Your task to perform on an android device: turn off javascript in the chrome app Image 0: 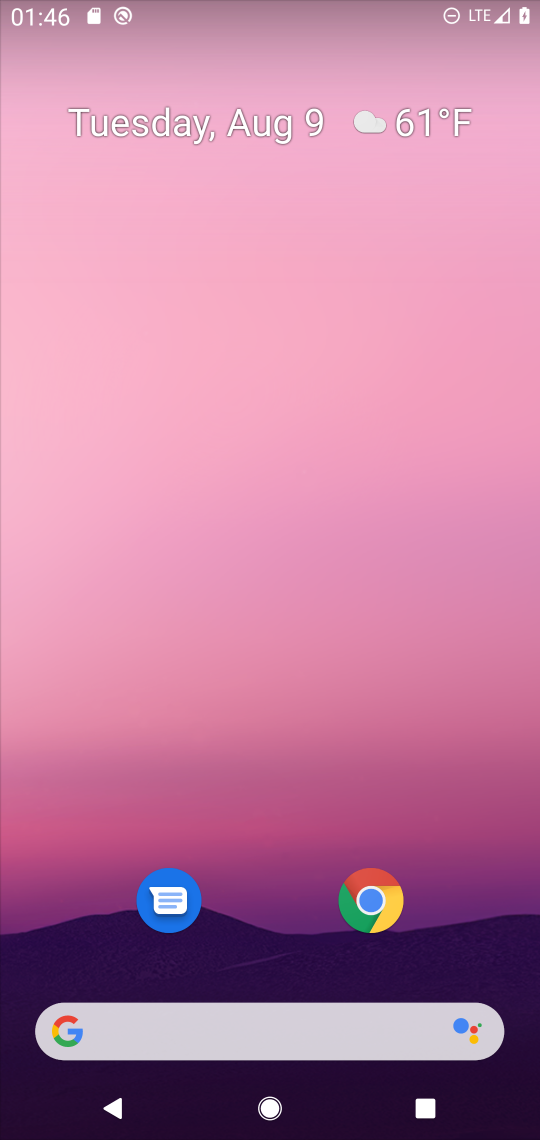
Step 0: press home button
Your task to perform on an android device: turn off javascript in the chrome app Image 1: 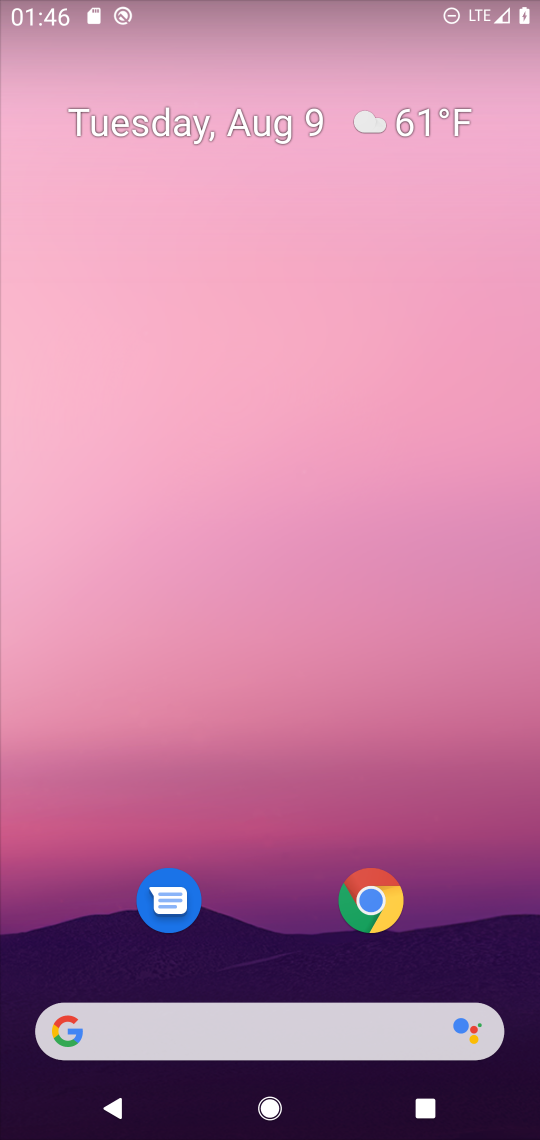
Step 1: drag from (271, 944) to (349, 90)
Your task to perform on an android device: turn off javascript in the chrome app Image 2: 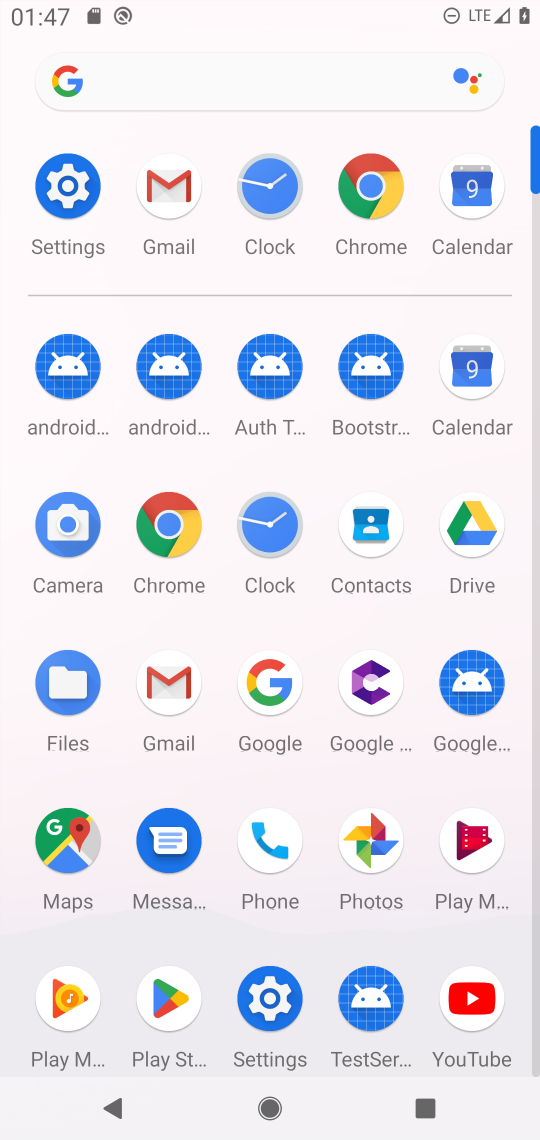
Step 2: click (167, 519)
Your task to perform on an android device: turn off javascript in the chrome app Image 3: 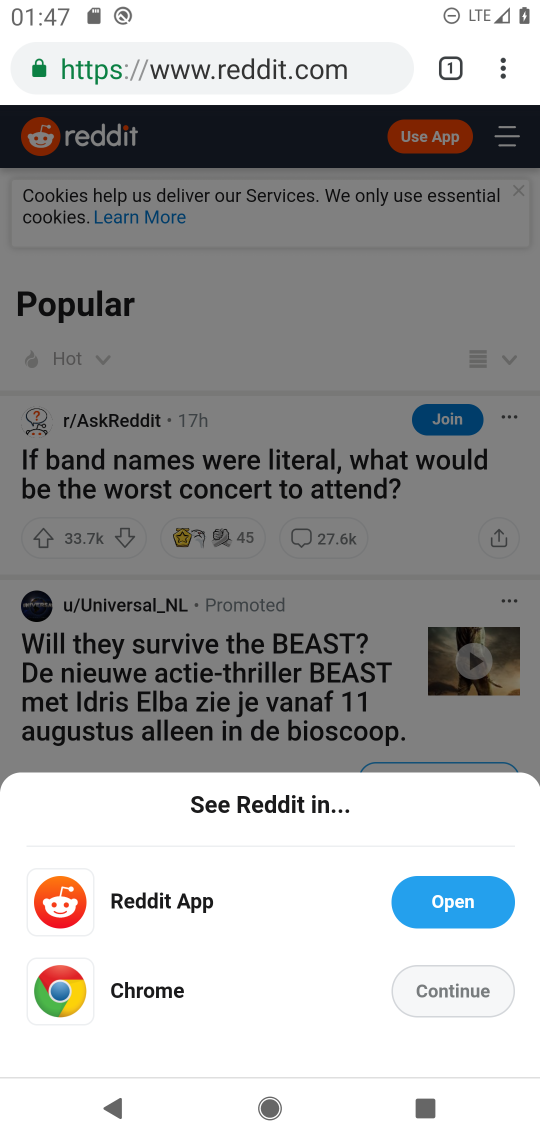
Step 3: click (505, 70)
Your task to perform on an android device: turn off javascript in the chrome app Image 4: 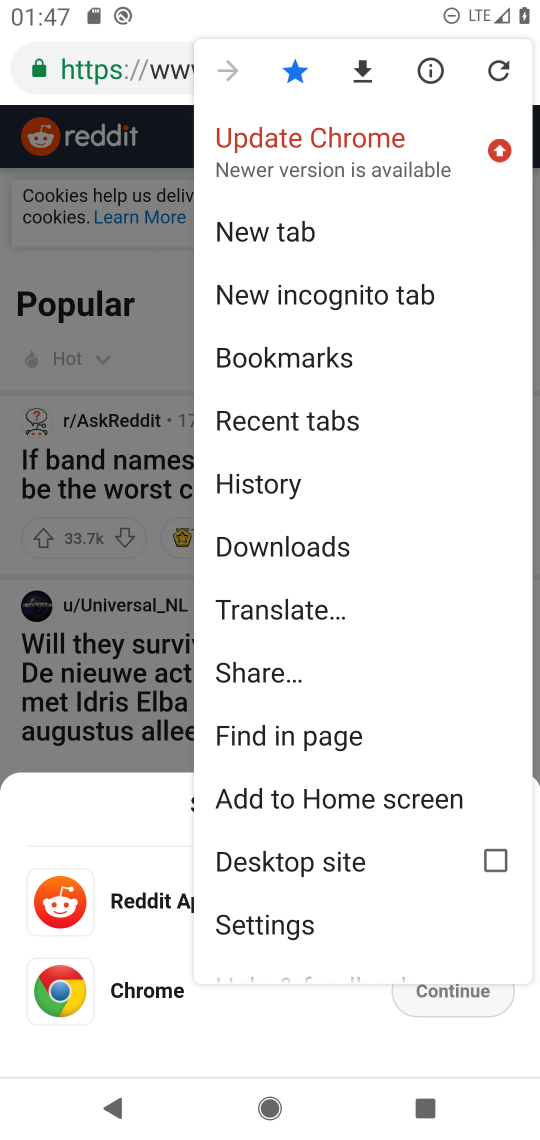
Step 4: click (322, 920)
Your task to perform on an android device: turn off javascript in the chrome app Image 5: 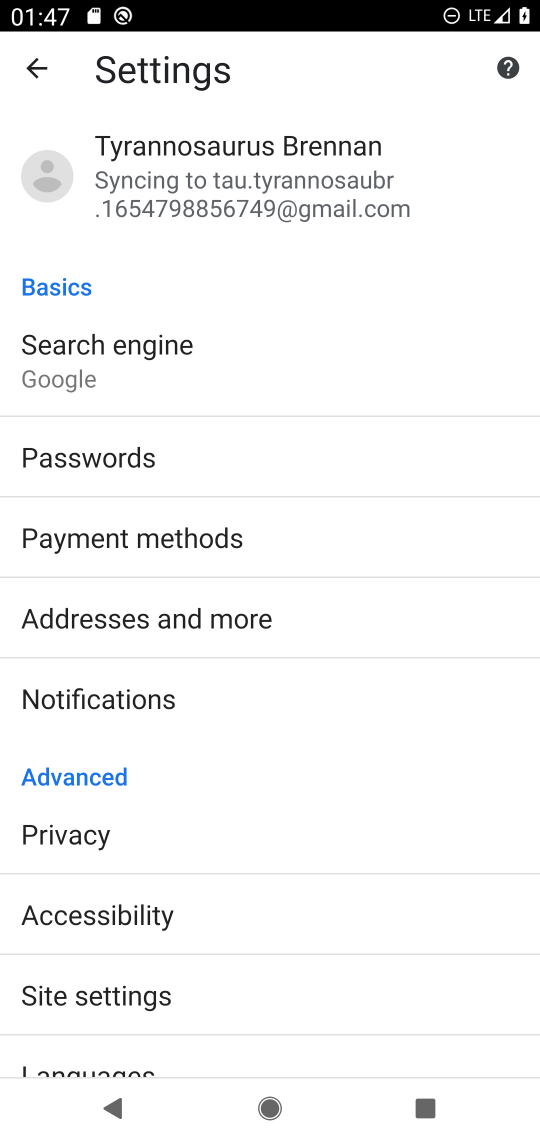
Step 5: drag from (354, 865) to (388, 607)
Your task to perform on an android device: turn off javascript in the chrome app Image 6: 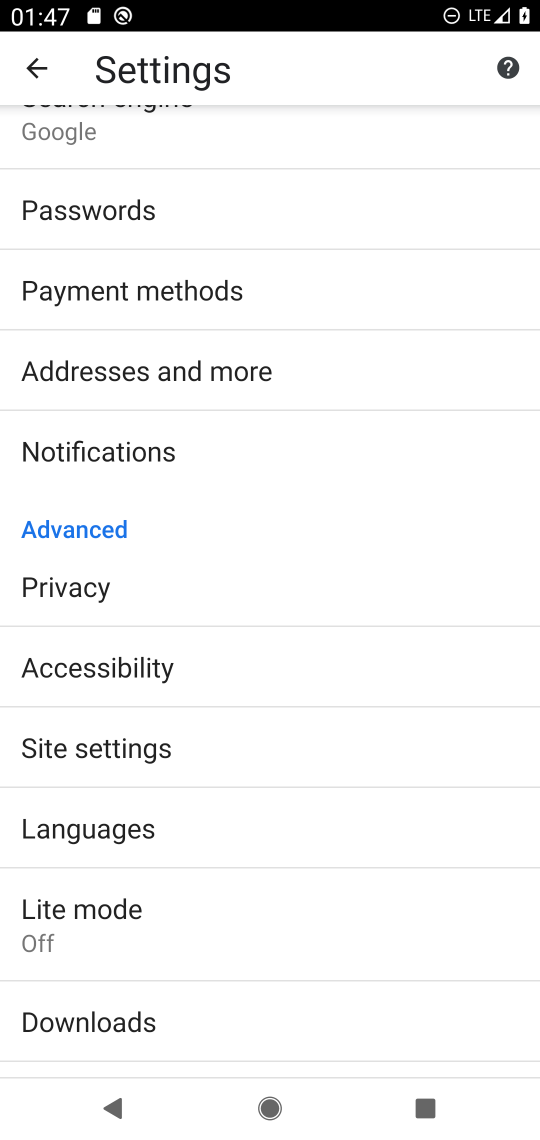
Step 6: drag from (342, 862) to (385, 624)
Your task to perform on an android device: turn off javascript in the chrome app Image 7: 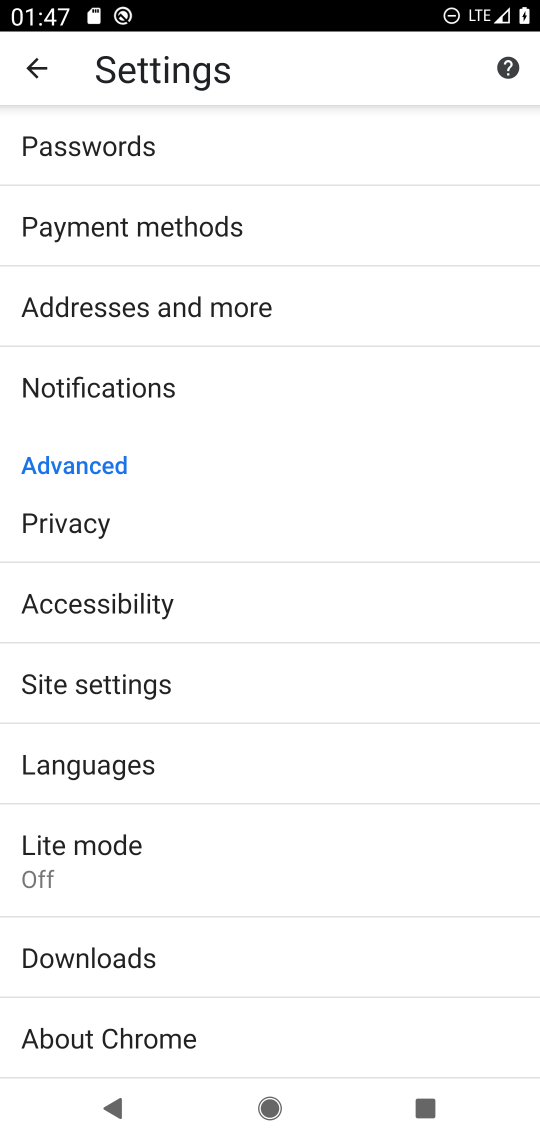
Step 7: drag from (363, 848) to (385, 623)
Your task to perform on an android device: turn off javascript in the chrome app Image 8: 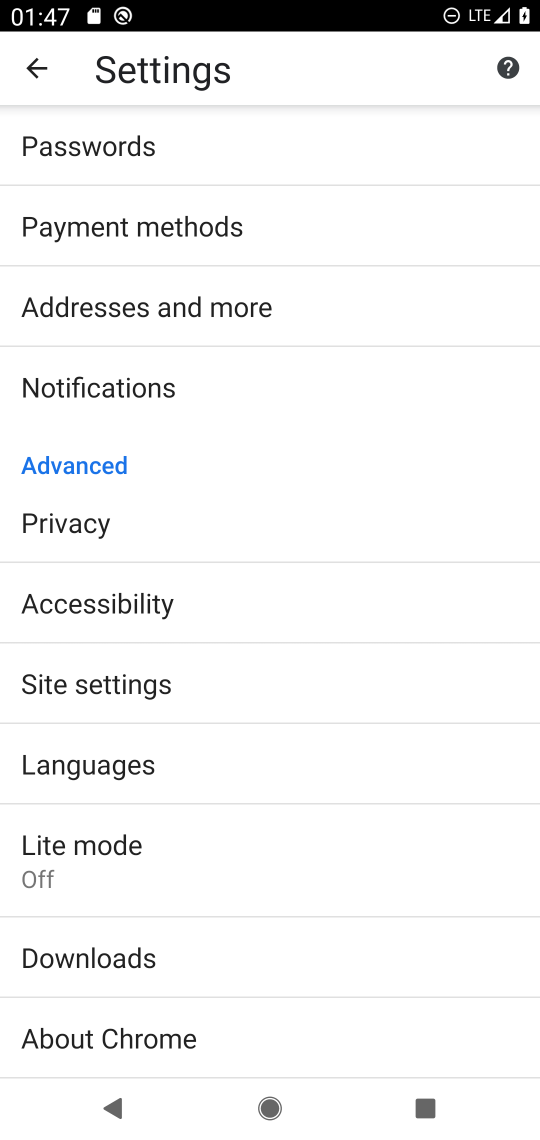
Step 8: drag from (362, 808) to (387, 566)
Your task to perform on an android device: turn off javascript in the chrome app Image 9: 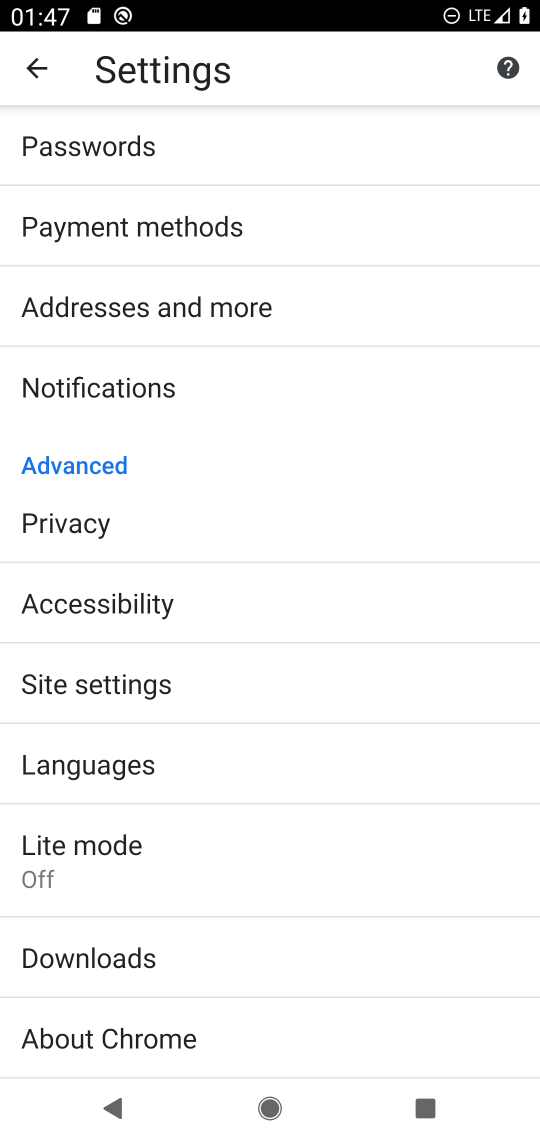
Step 9: click (322, 677)
Your task to perform on an android device: turn off javascript in the chrome app Image 10: 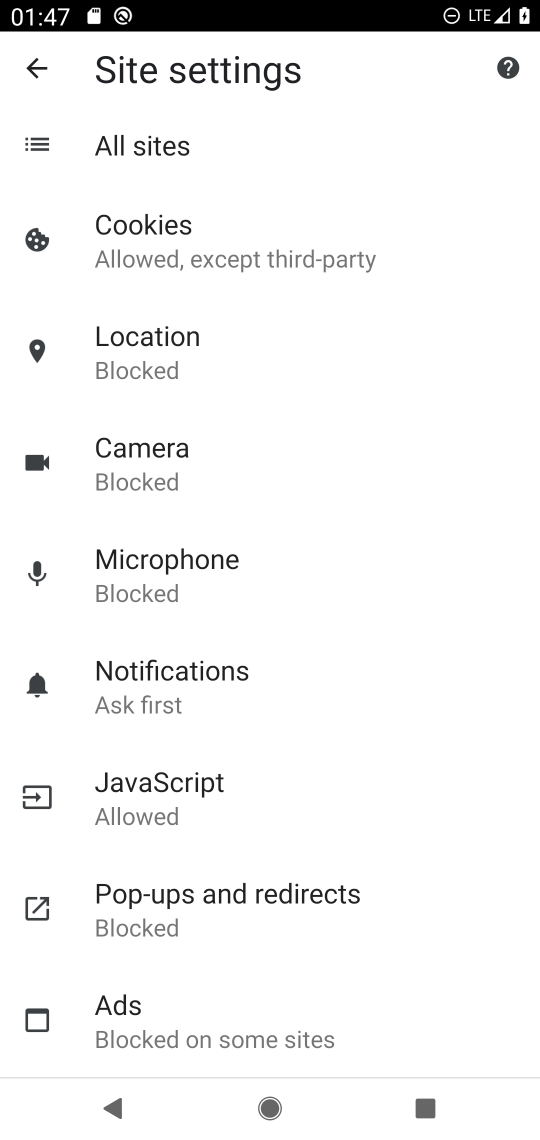
Step 10: drag from (412, 812) to (439, 581)
Your task to perform on an android device: turn off javascript in the chrome app Image 11: 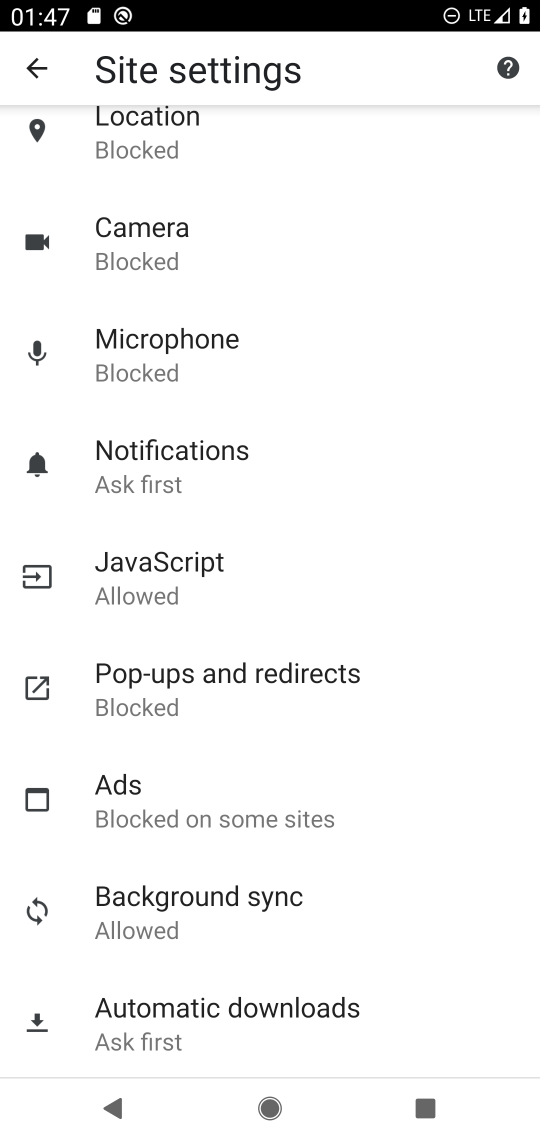
Step 11: click (241, 566)
Your task to perform on an android device: turn off javascript in the chrome app Image 12: 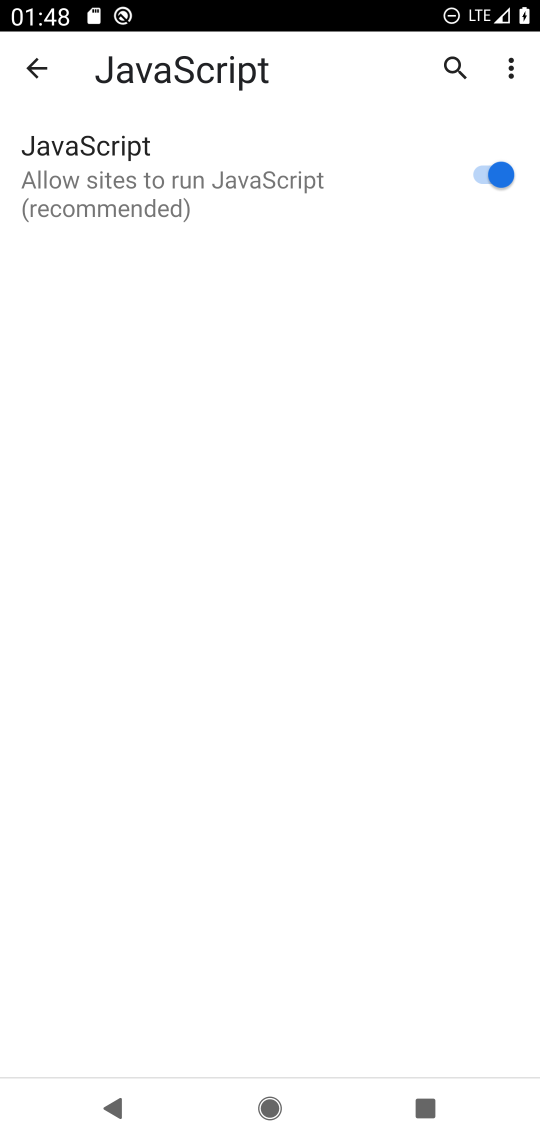
Step 12: click (495, 176)
Your task to perform on an android device: turn off javascript in the chrome app Image 13: 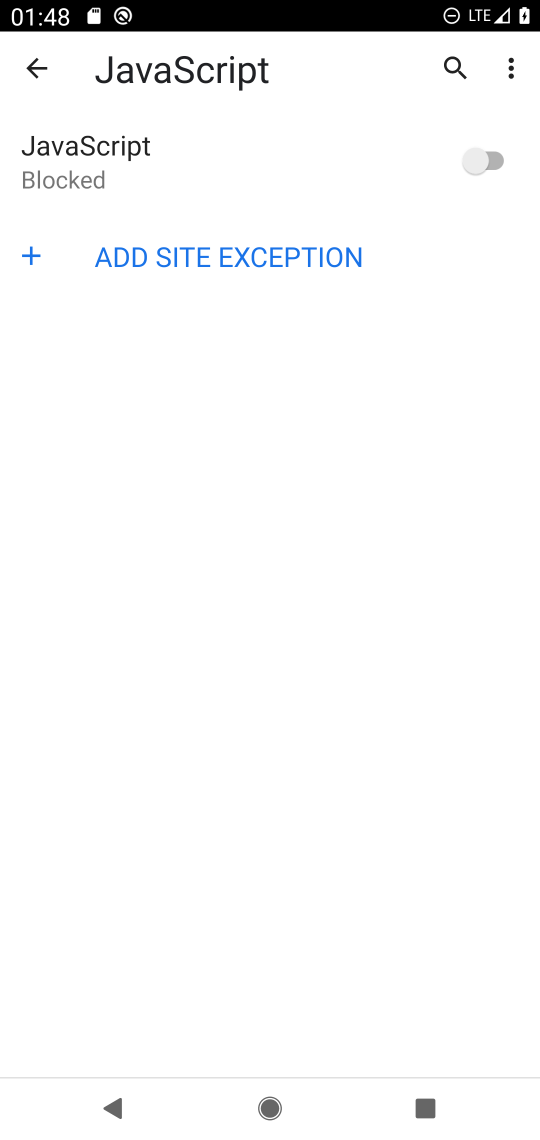
Step 13: task complete